Your task to perform on an android device: toggle translation in the chrome app Image 0: 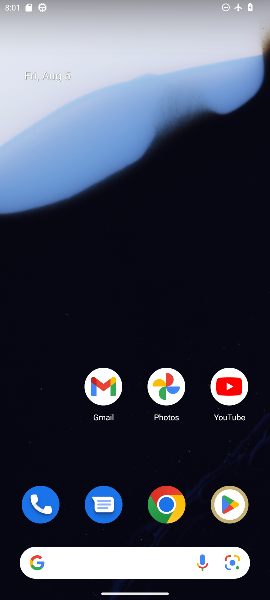
Step 0: click (152, 508)
Your task to perform on an android device: toggle translation in the chrome app Image 1: 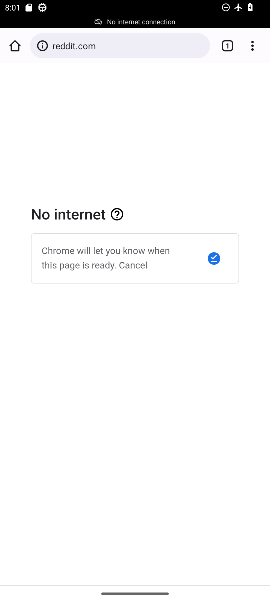
Step 1: drag from (244, 48) to (168, 402)
Your task to perform on an android device: toggle translation in the chrome app Image 2: 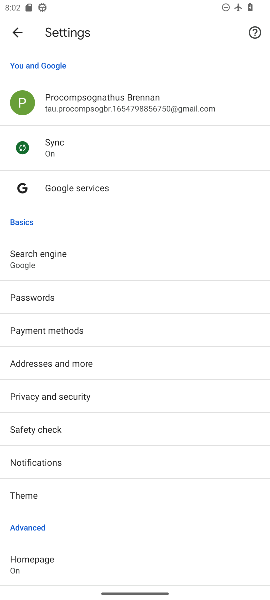
Step 2: drag from (77, 558) to (56, 240)
Your task to perform on an android device: toggle translation in the chrome app Image 3: 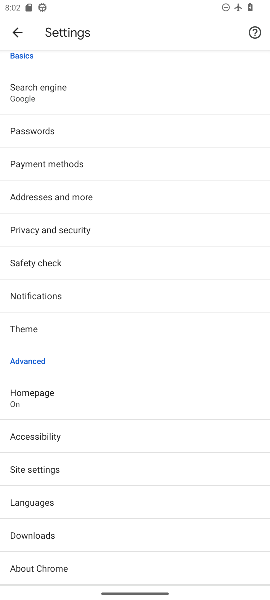
Step 3: click (58, 499)
Your task to perform on an android device: toggle translation in the chrome app Image 4: 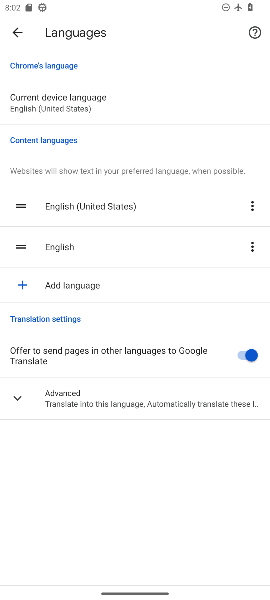
Step 4: click (245, 350)
Your task to perform on an android device: toggle translation in the chrome app Image 5: 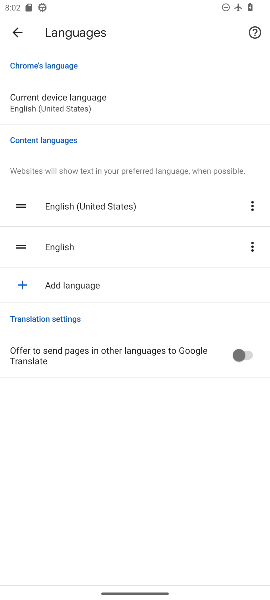
Step 5: task complete